Your task to perform on an android device: What's the weather going to be tomorrow? Image 0: 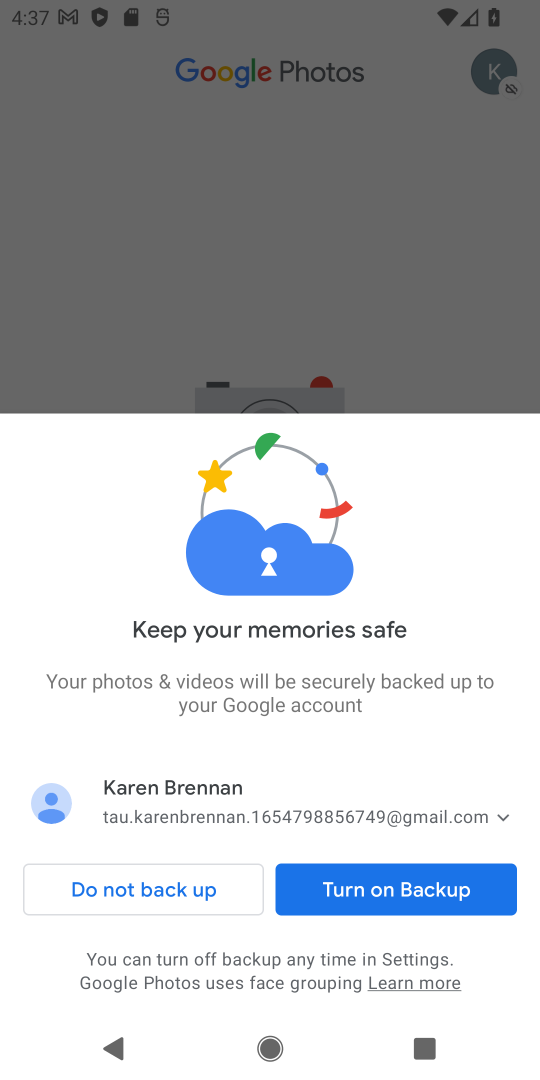
Step 0: press home button
Your task to perform on an android device: What's the weather going to be tomorrow? Image 1: 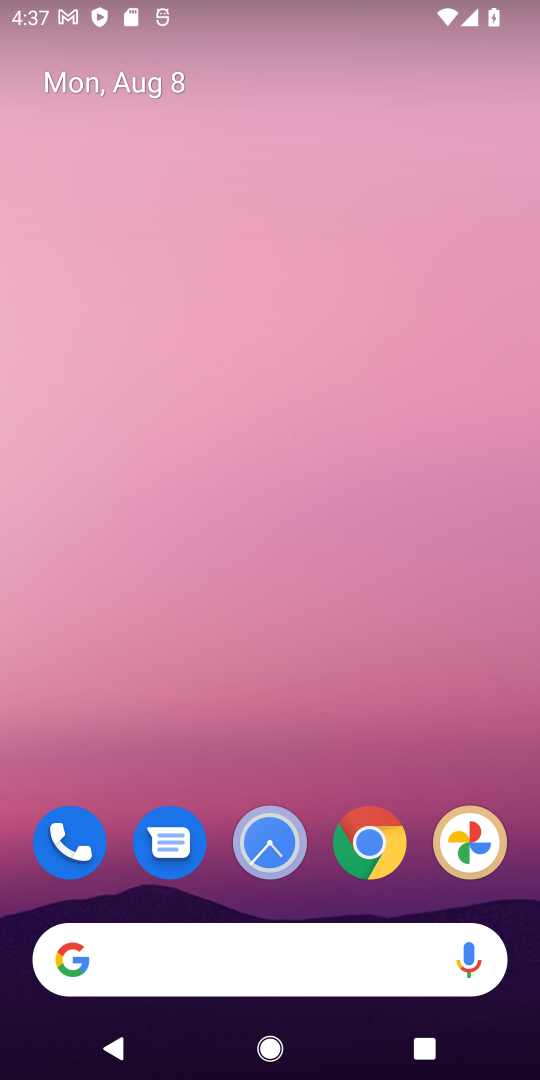
Step 1: click (324, 949)
Your task to perform on an android device: What's the weather going to be tomorrow? Image 2: 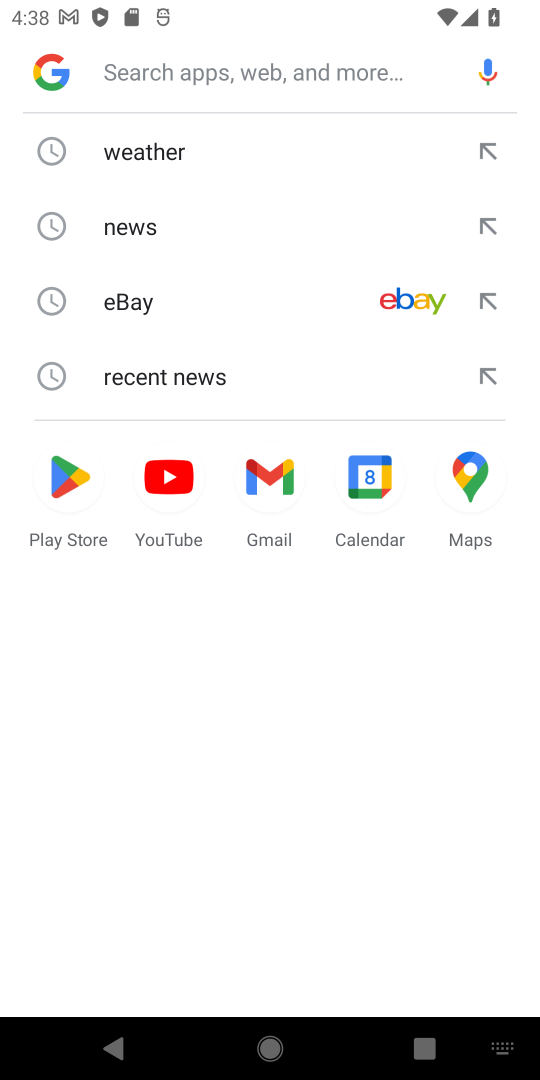
Step 2: click (177, 143)
Your task to perform on an android device: What's the weather going to be tomorrow? Image 3: 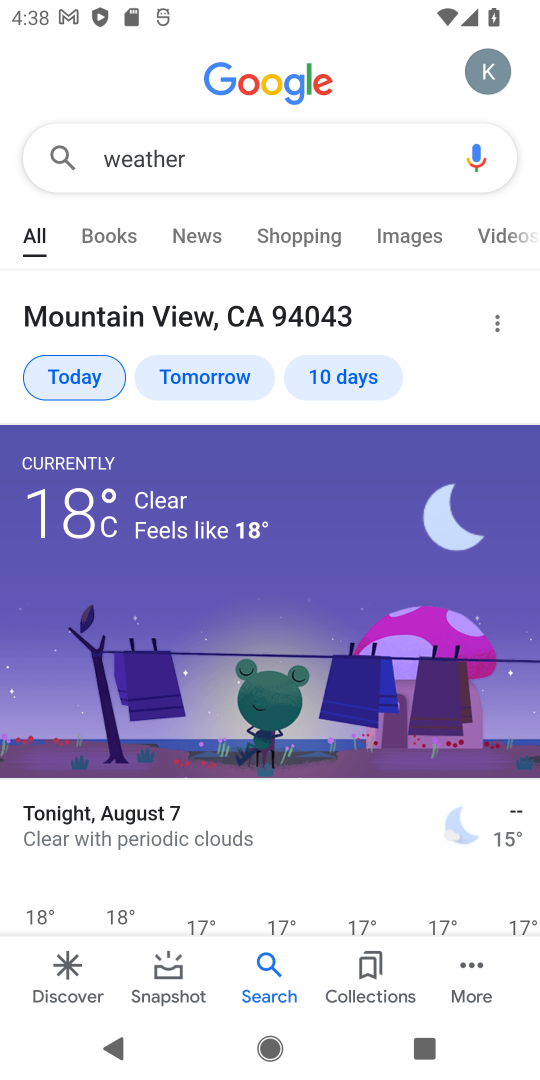
Step 3: click (223, 385)
Your task to perform on an android device: What's the weather going to be tomorrow? Image 4: 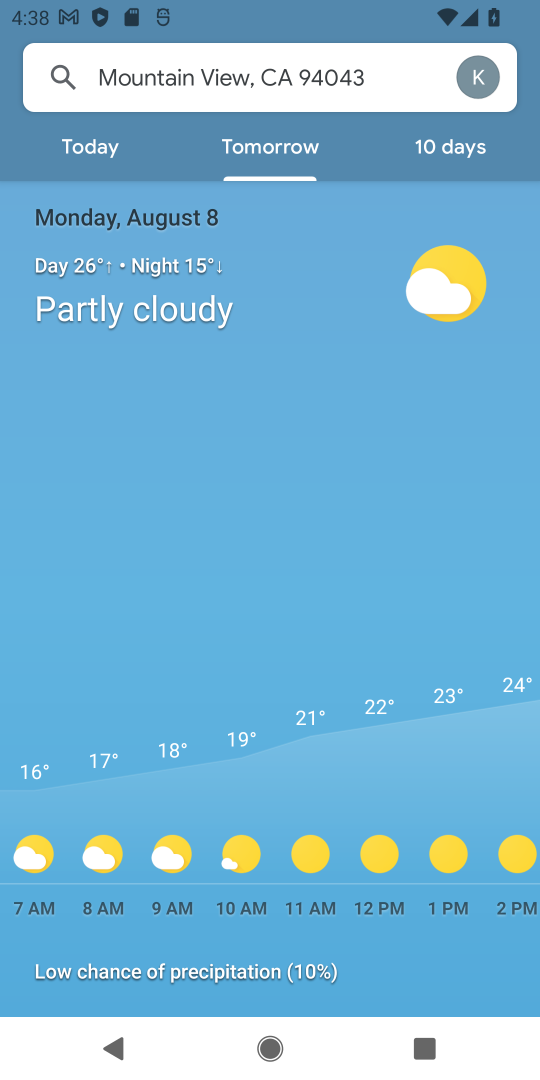
Step 4: task complete